Your task to perform on an android device: turn off translation in the chrome app Image 0: 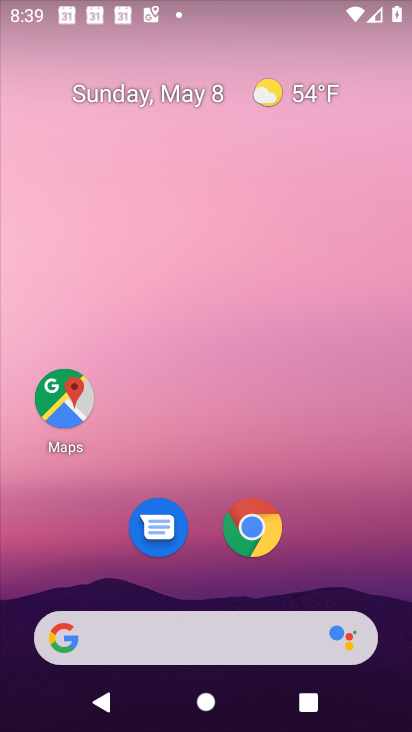
Step 0: click (252, 524)
Your task to perform on an android device: turn off translation in the chrome app Image 1: 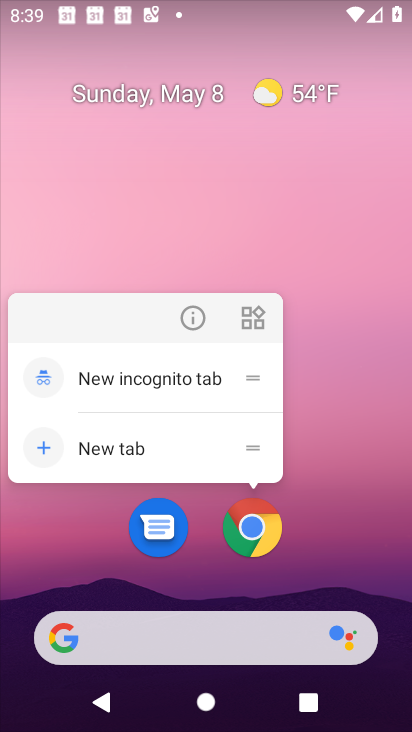
Step 1: click (232, 530)
Your task to perform on an android device: turn off translation in the chrome app Image 2: 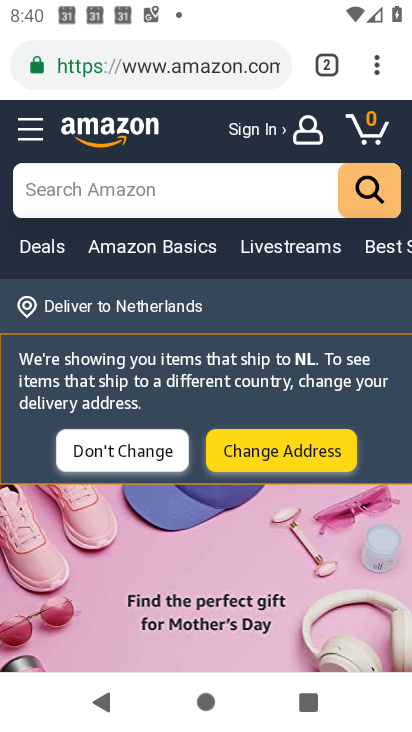
Step 2: click (374, 68)
Your task to perform on an android device: turn off translation in the chrome app Image 3: 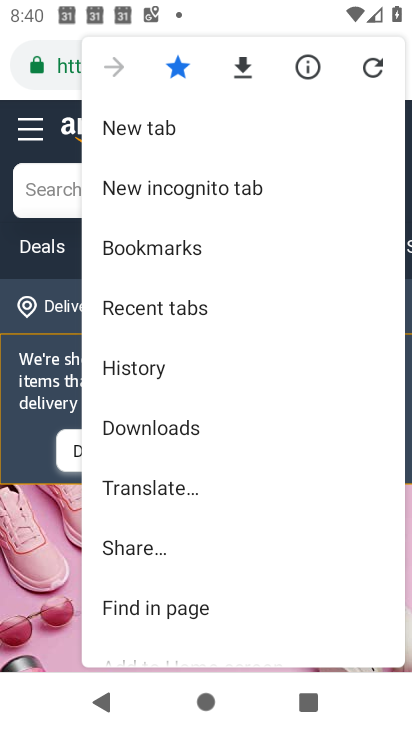
Step 3: drag from (220, 624) to (214, 319)
Your task to perform on an android device: turn off translation in the chrome app Image 4: 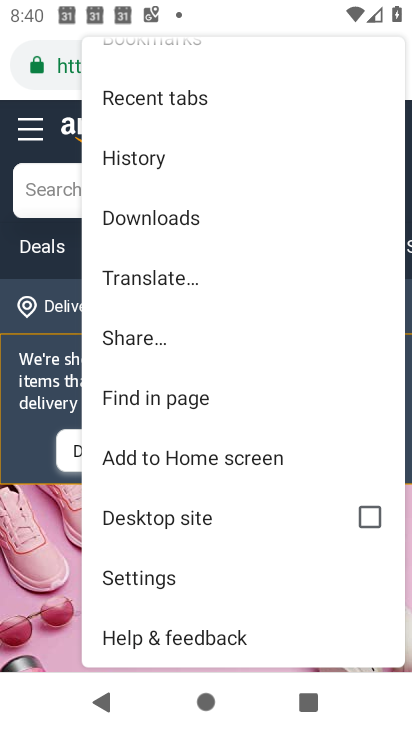
Step 4: click (231, 574)
Your task to perform on an android device: turn off translation in the chrome app Image 5: 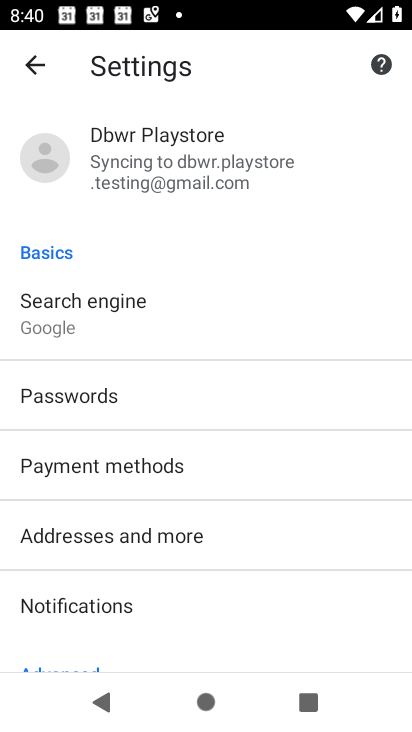
Step 5: drag from (153, 612) to (156, 396)
Your task to perform on an android device: turn off translation in the chrome app Image 6: 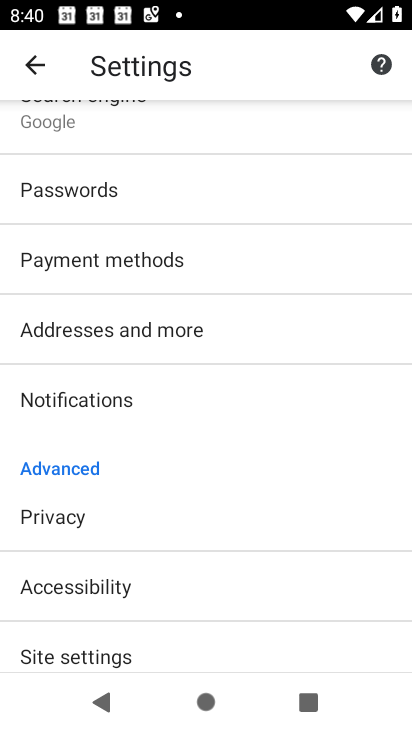
Step 6: drag from (169, 635) to (188, 429)
Your task to perform on an android device: turn off translation in the chrome app Image 7: 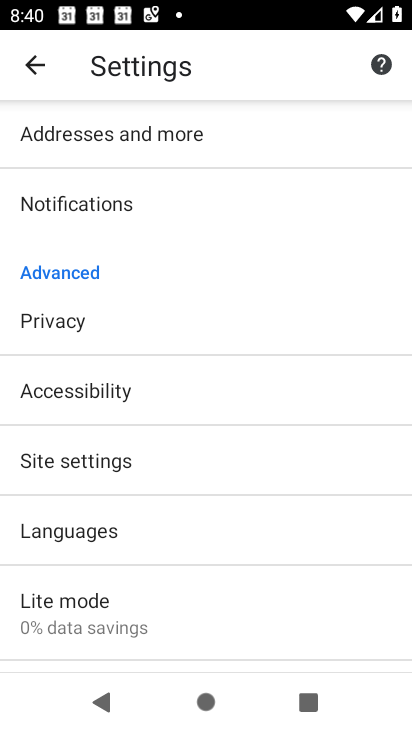
Step 7: click (172, 531)
Your task to perform on an android device: turn off translation in the chrome app Image 8: 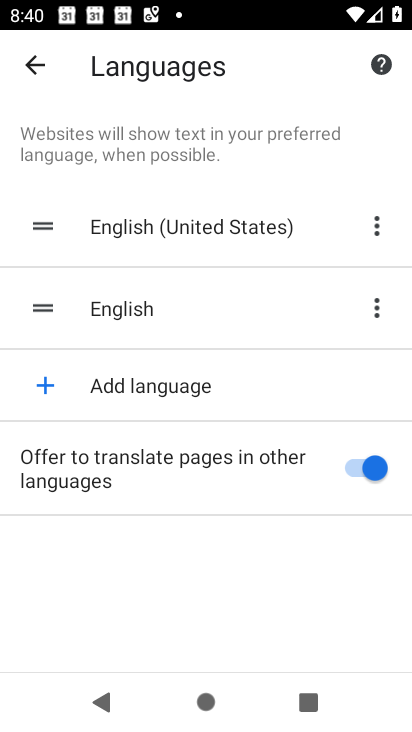
Step 8: click (365, 463)
Your task to perform on an android device: turn off translation in the chrome app Image 9: 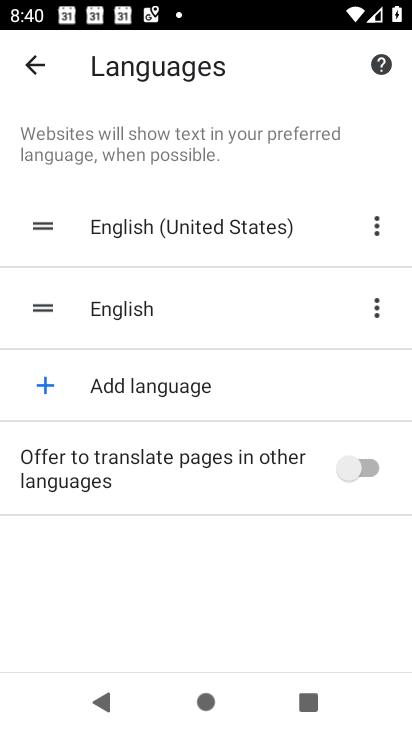
Step 9: task complete